Your task to perform on an android device: toggle improve location accuracy Image 0: 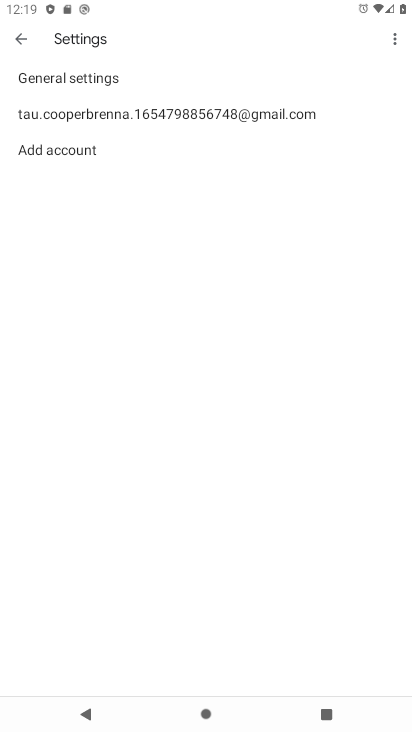
Step 0: press home button
Your task to perform on an android device: toggle improve location accuracy Image 1: 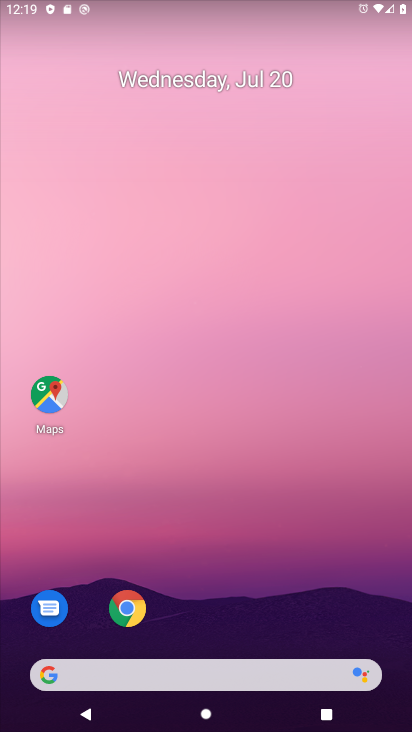
Step 1: drag from (195, 675) to (239, 72)
Your task to perform on an android device: toggle improve location accuracy Image 2: 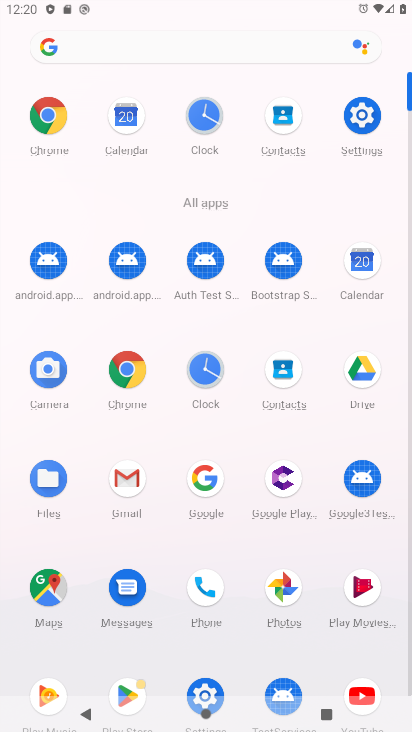
Step 2: click (362, 115)
Your task to perform on an android device: toggle improve location accuracy Image 3: 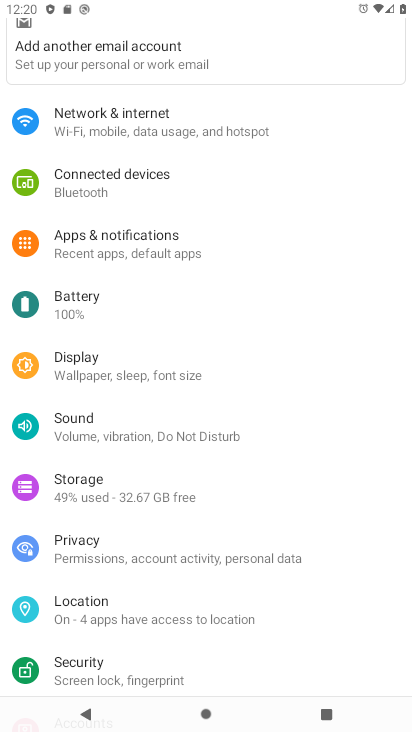
Step 3: click (103, 606)
Your task to perform on an android device: toggle improve location accuracy Image 4: 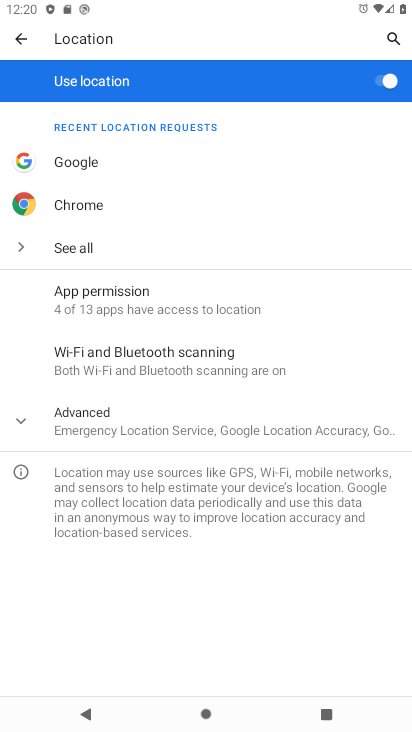
Step 4: click (168, 428)
Your task to perform on an android device: toggle improve location accuracy Image 5: 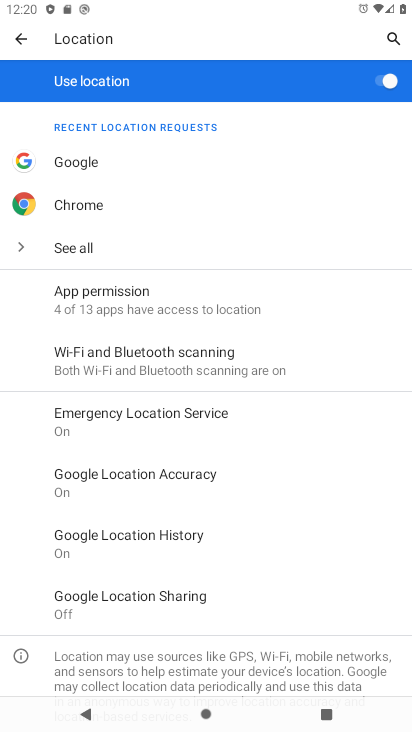
Step 5: click (170, 478)
Your task to perform on an android device: toggle improve location accuracy Image 6: 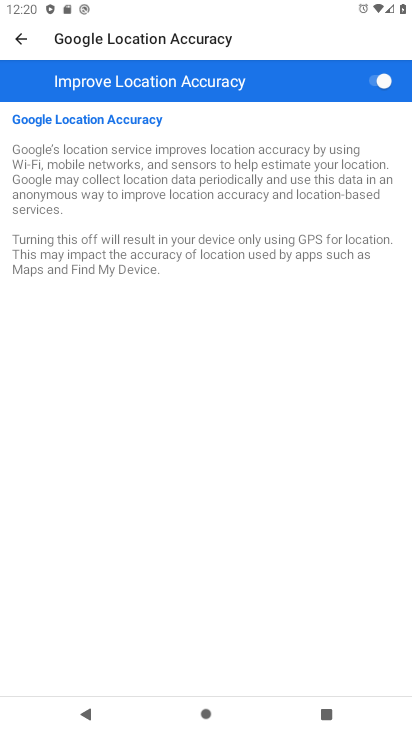
Step 6: click (377, 81)
Your task to perform on an android device: toggle improve location accuracy Image 7: 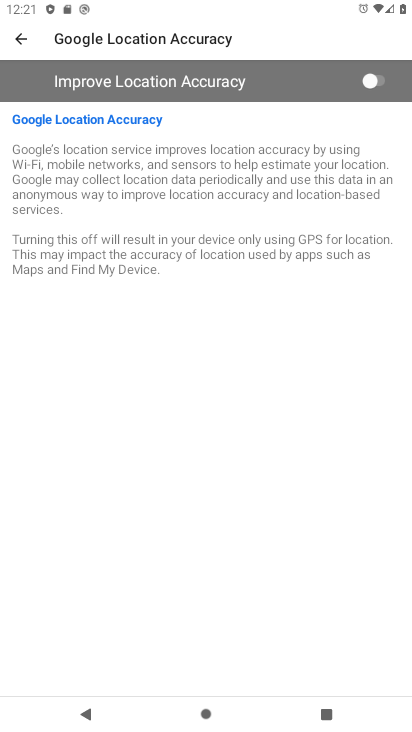
Step 7: task complete